Your task to perform on an android device: check the backup settings in the google photos Image 0: 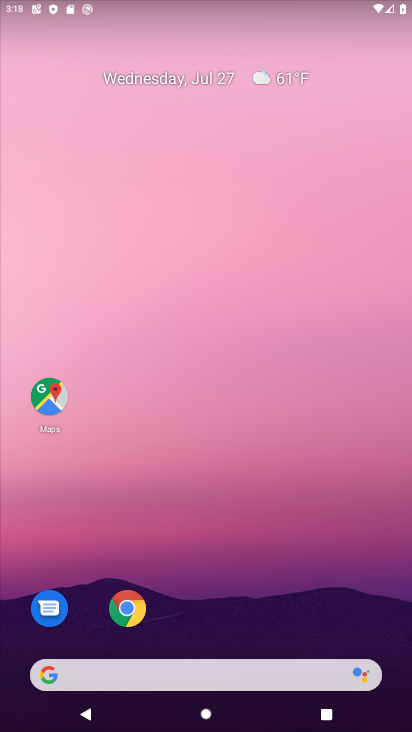
Step 0: drag from (233, 556) to (139, 33)
Your task to perform on an android device: check the backup settings in the google photos Image 1: 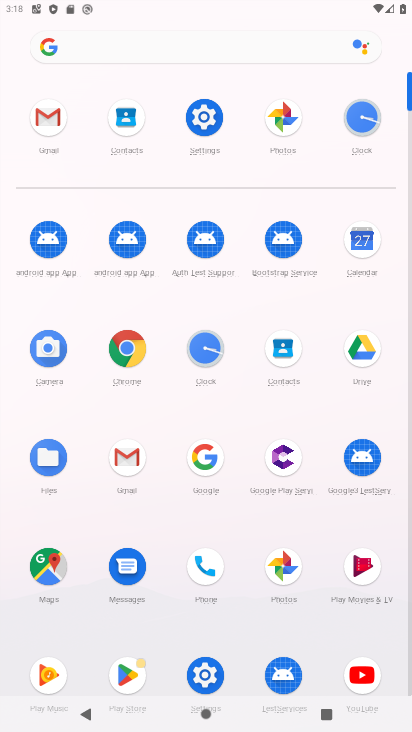
Step 1: click (281, 121)
Your task to perform on an android device: check the backup settings in the google photos Image 2: 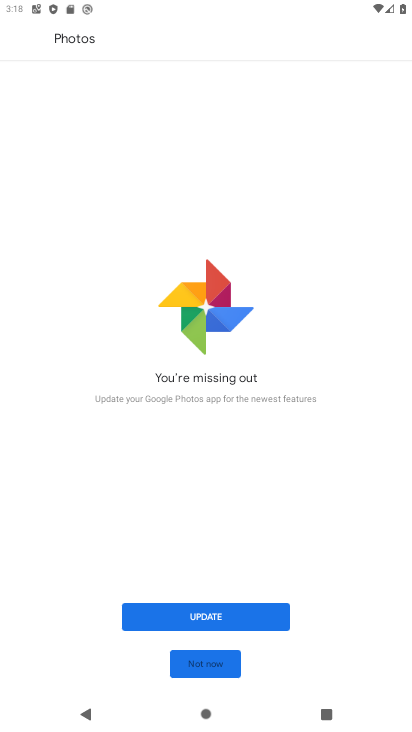
Step 2: click (273, 613)
Your task to perform on an android device: check the backup settings in the google photos Image 3: 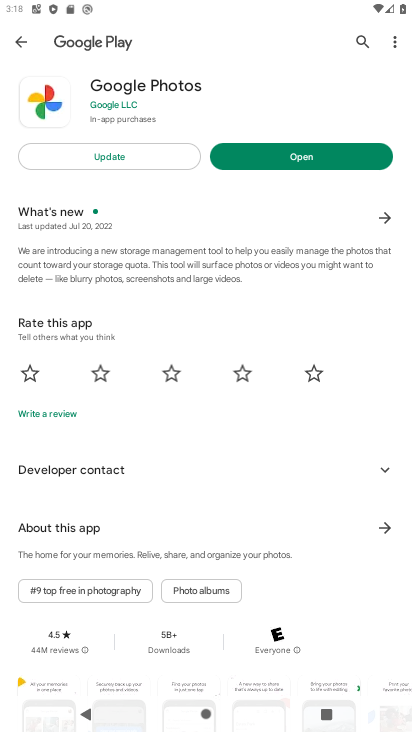
Step 3: click (168, 141)
Your task to perform on an android device: check the backup settings in the google photos Image 4: 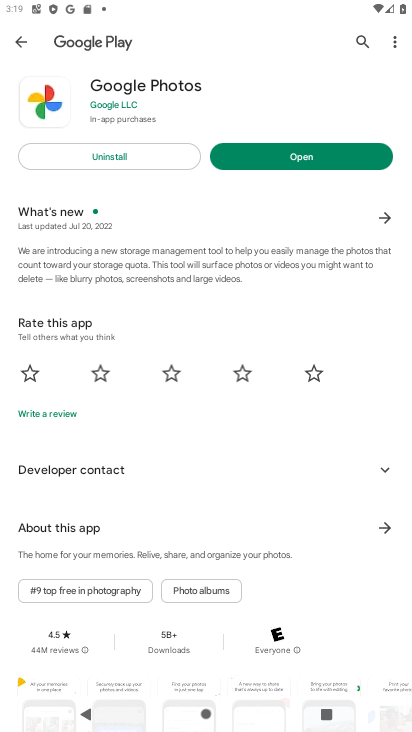
Step 4: click (265, 159)
Your task to perform on an android device: check the backup settings in the google photos Image 5: 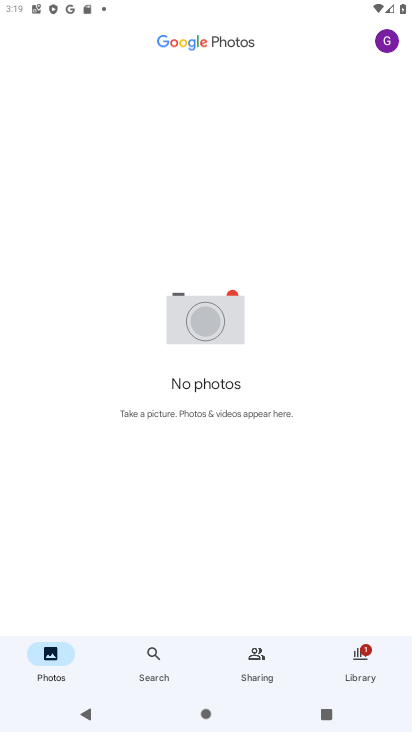
Step 5: click (382, 41)
Your task to perform on an android device: check the backup settings in the google photos Image 6: 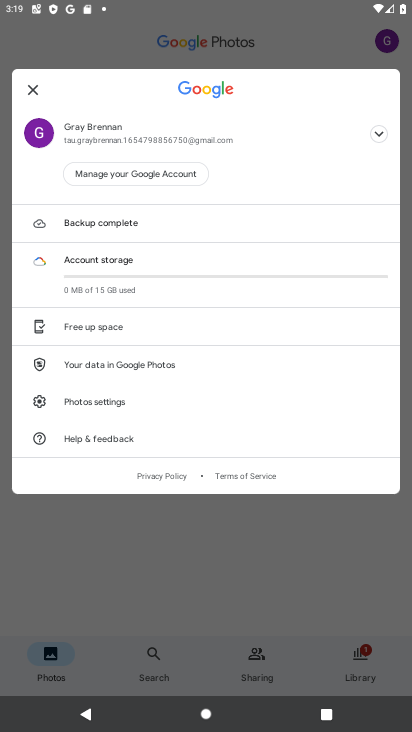
Step 6: click (122, 401)
Your task to perform on an android device: check the backup settings in the google photos Image 7: 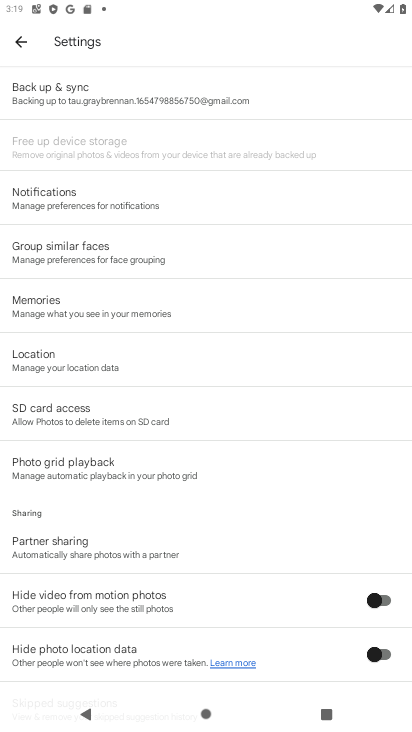
Step 7: click (136, 81)
Your task to perform on an android device: check the backup settings in the google photos Image 8: 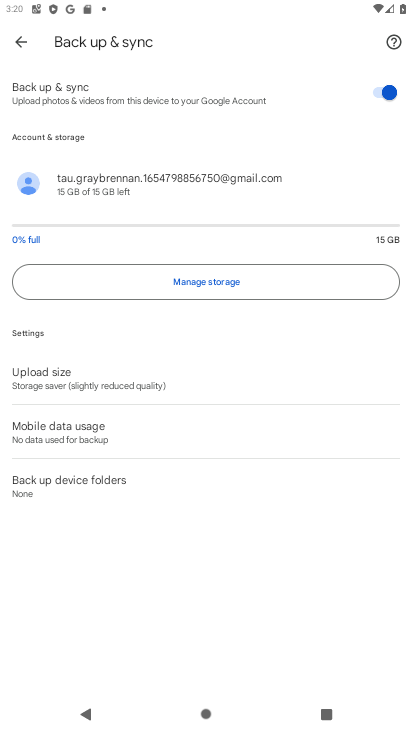
Step 8: task complete